Your task to perform on an android device: Open calendar and show me the second week of next month Image 0: 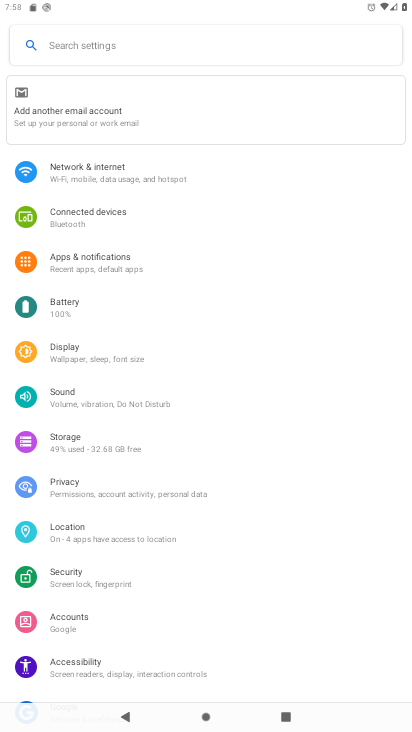
Step 0: press home button
Your task to perform on an android device: Open calendar and show me the second week of next month Image 1: 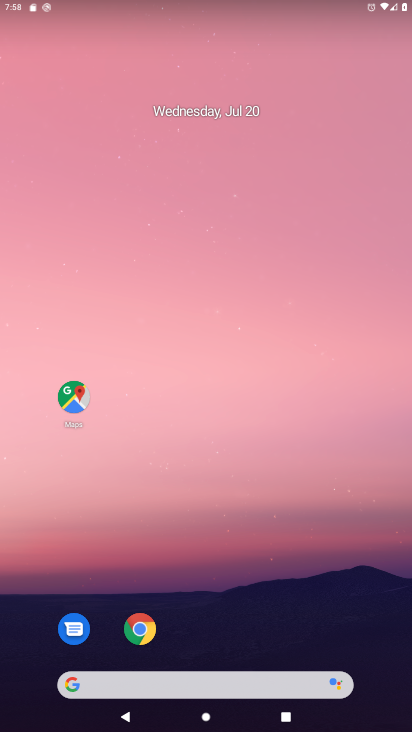
Step 1: drag from (319, 612) to (339, 245)
Your task to perform on an android device: Open calendar and show me the second week of next month Image 2: 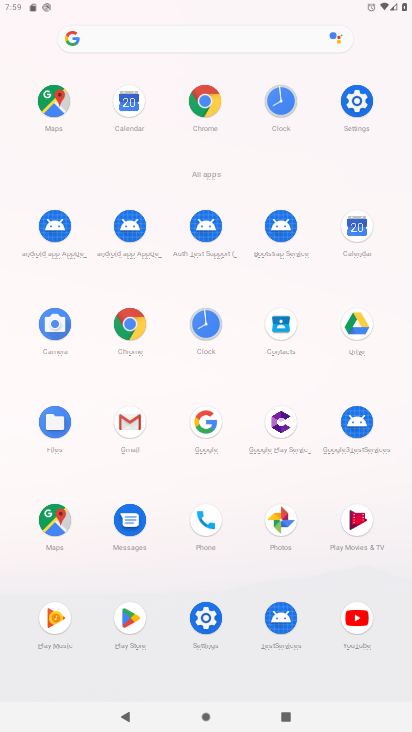
Step 2: click (364, 233)
Your task to perform on an android device: Open calendar and show me the second week of next month Image 3: 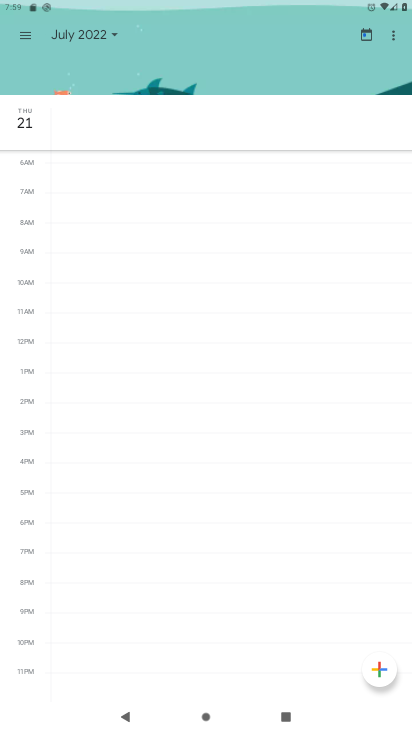
Step 3: click (30, 39)
Your task to perform on an android device: Open calendar and show me the second week of next month Image 4: 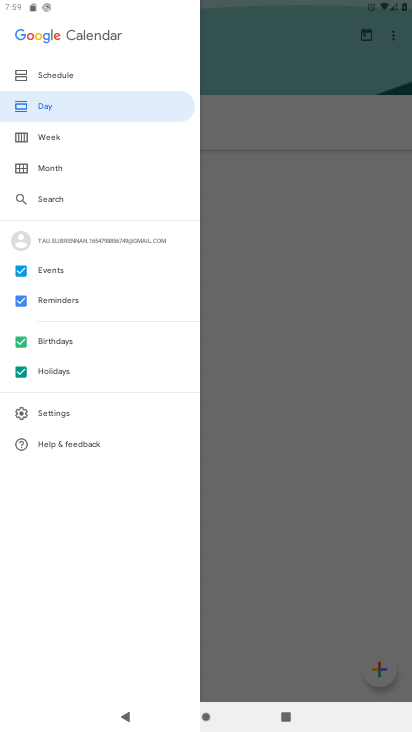
Step 4: click (80, 132)
Your task to perform on an android device: Open calendar and show me the second week of next month Image 5: 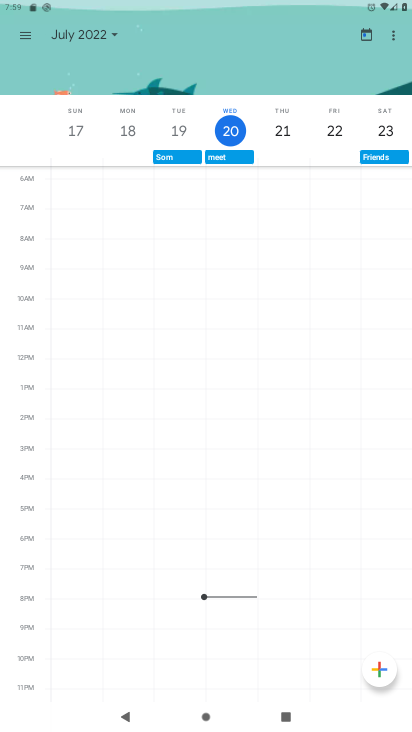
Step 5: click (74, 35)
Your task to perform on an android device: Open calendar and show me the second week of next month Image 6: 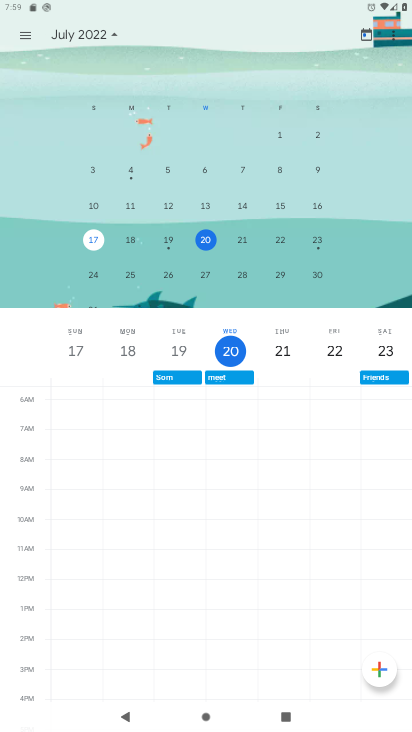
Step 6: drag from (346, 222) to (43, 179)
Your task to perform on an android device: Open calendar and show me the second week of next month Image 7: 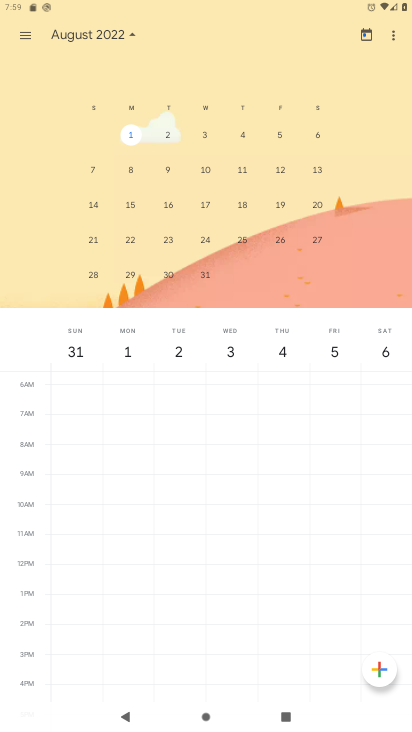
Step 7: click (167, 165)
Your task to perform on an android device: Open calendar and show me the second week of next month Image 8: 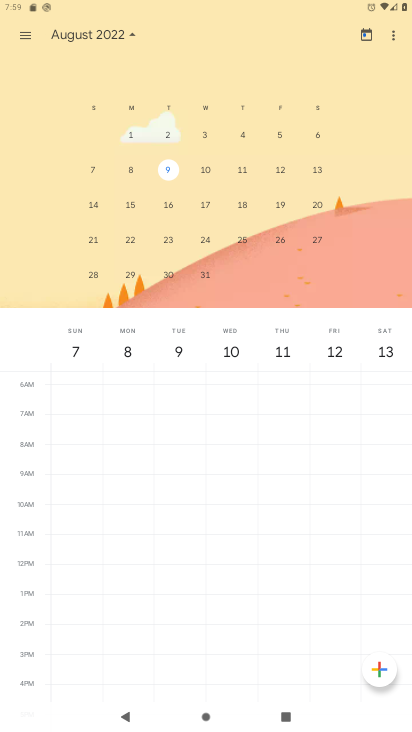
Step 8: task complete